Your task to perform on an android device: Go to wifi settings Image 0: 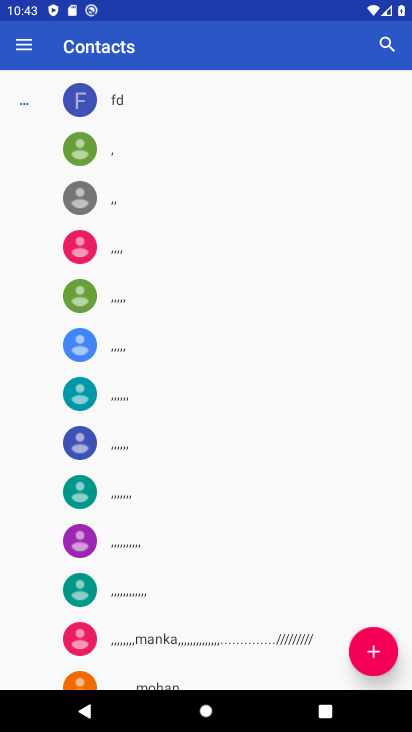
Step 0: press home button
Your task to perform on an android device: Go to wifi settings Image 1: 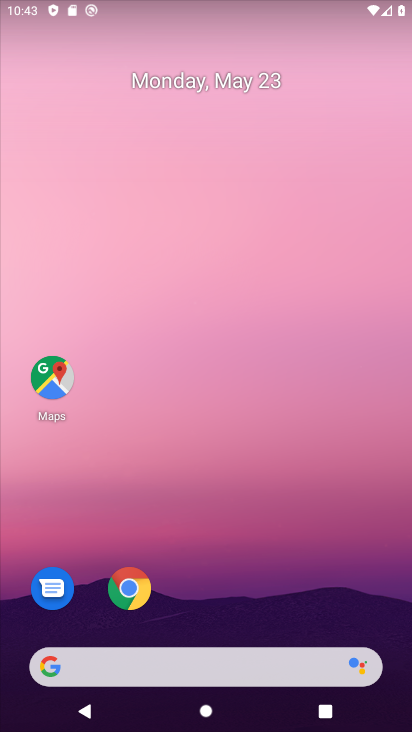
Step 1: drag from (391, 609) to (326, 95)
Your task to perform on an android device: Go to wifi settings Image 2: 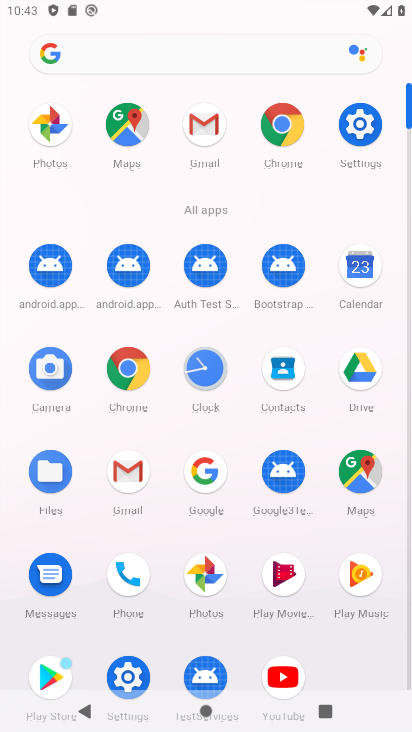
Step 2: click (132, 668)
Your task to perform on an android device: Go to wifi settings Image 3: 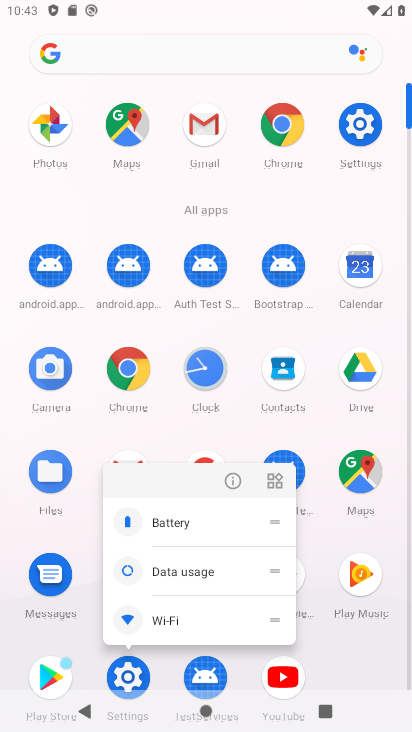
Step 3: click (141, 688)
Your task to perform on an android device: Go to wifi settings Image 4: 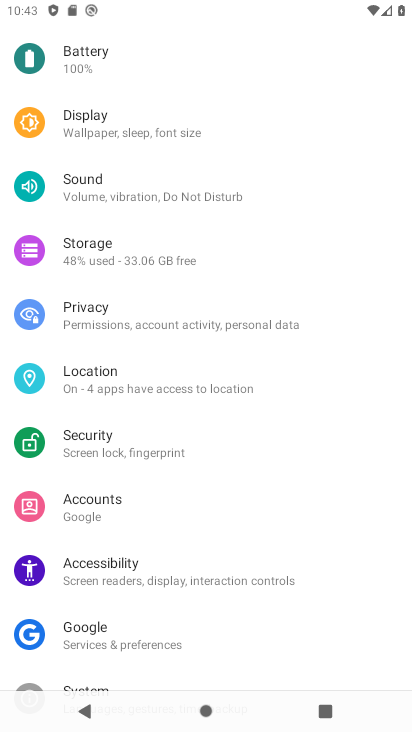
Step 4: drag from (191, 159) to (209, 529)
Your task to perform on an android device: Go to wifi settings Image 5: 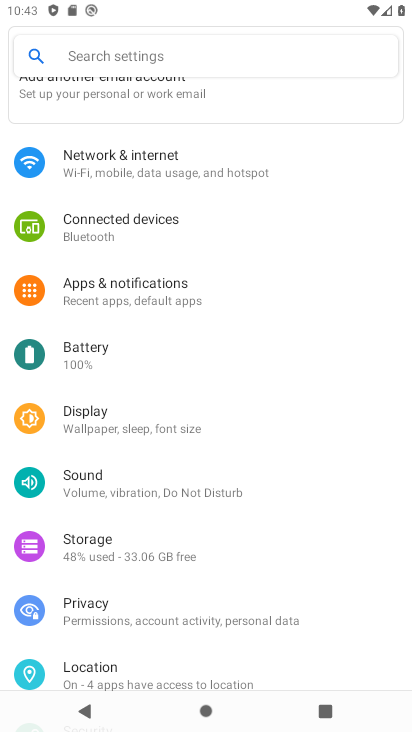
Step 5: click (229, 173)
Your task to perform on an android device: Go to wifi settings Image 6: 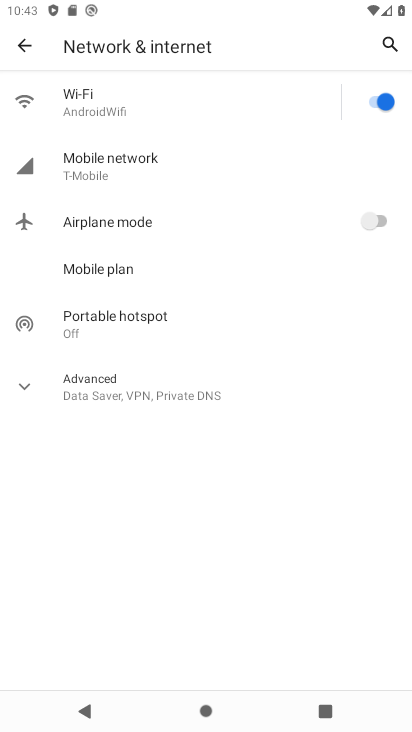
Step 6: click (131, 109)
Your task to perform on an android device: Go to wifi settings Image 7: 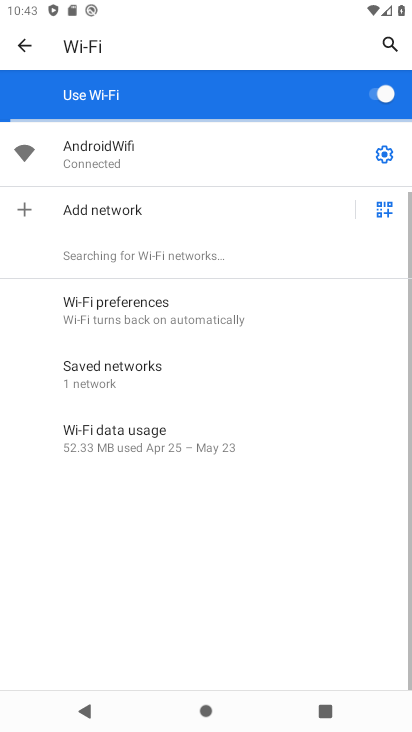
Step 7: click (390, 155)
Your task to perform on an android device: Go to wifi settings Image 8: 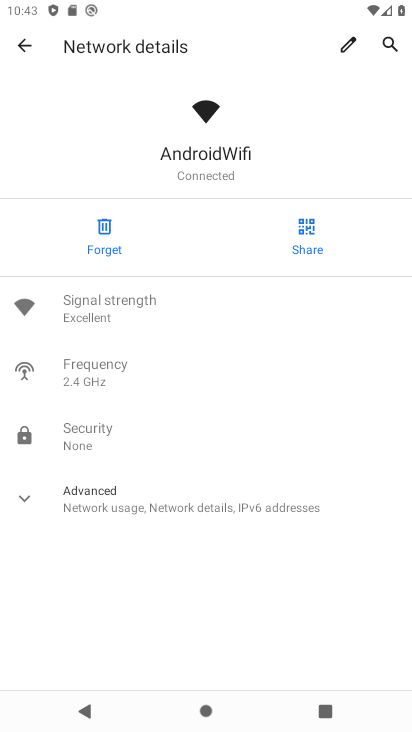
Step 8: task complete